Your task to perform on an android device: toggle wifi Image 0: 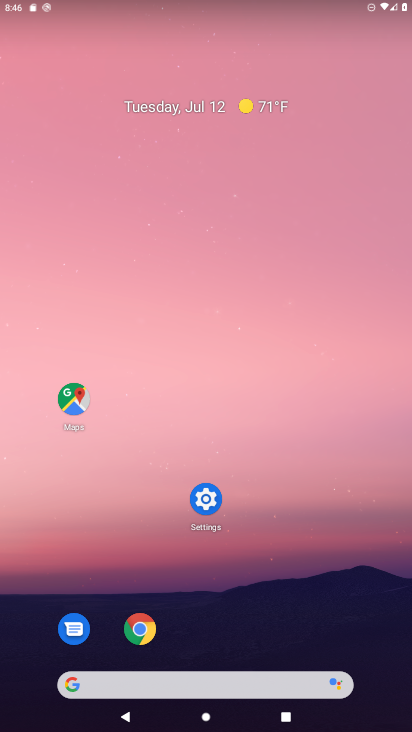
Step 0: click (209, 487)
Your task to perform on an android device: toggle wifi Image 1: 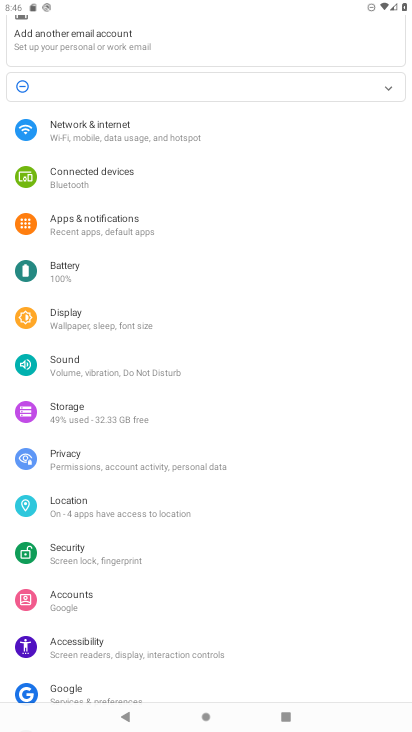
Step 1: click (81, 124)
Your task to perform on an android device: toggle wifi Image 2: 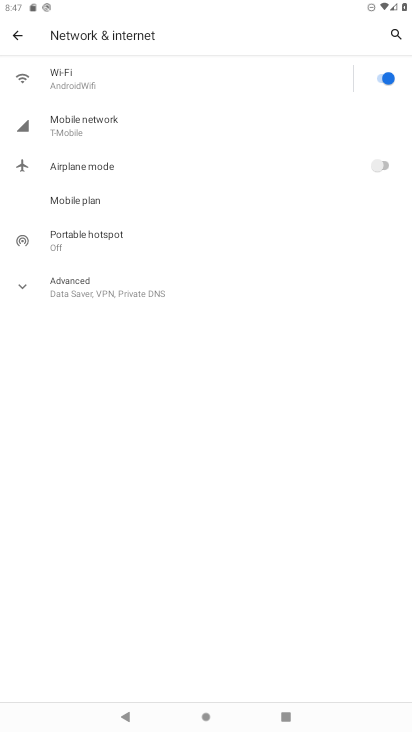
Step 2: click (390, 77)
Your task to perform on an android device: toggle wifi Image 3: 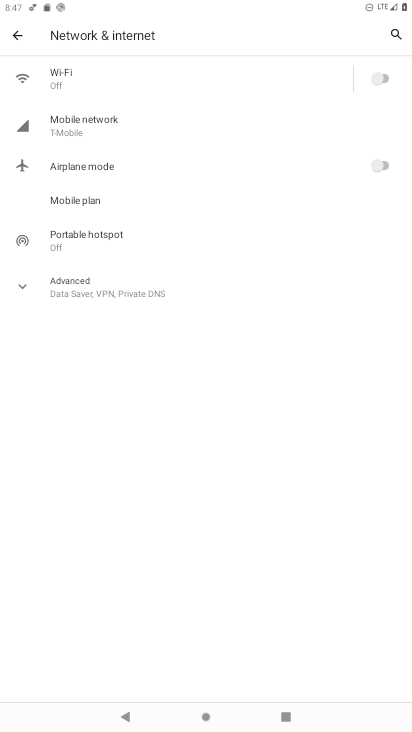
Step 3: task complete